Your task to perform on an android device: read, delete, or share a saved page in the chrome app Image 0: 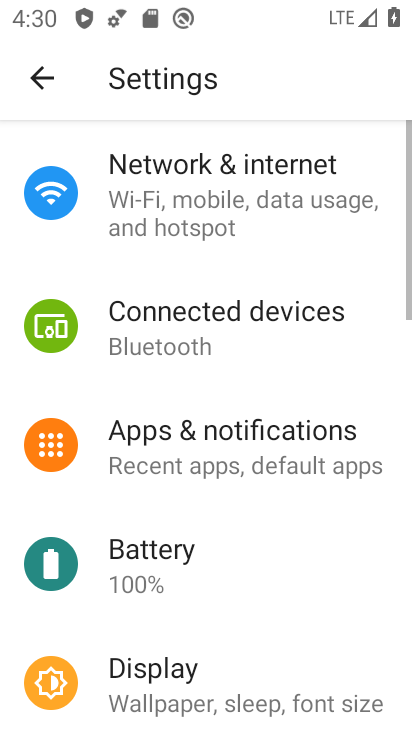
Step 0: press back button
Your task to perform on an android device: read, delete, or share a saved page in the chrome app Image 1: 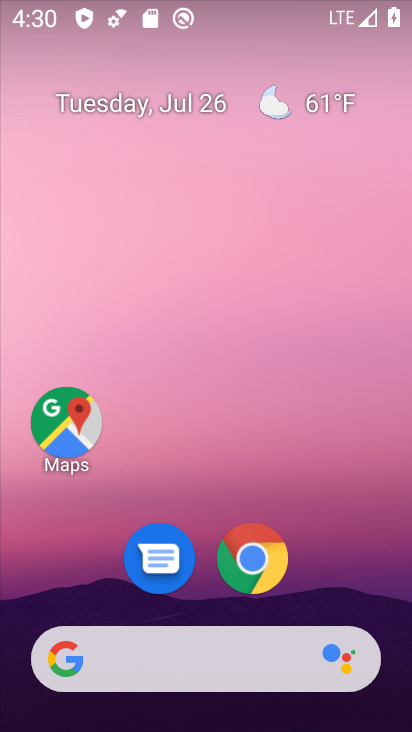
Step 1: click (244, 561)
Your task to perform on an android device: read, delete, or share a saved page in the chrome app Image 2: 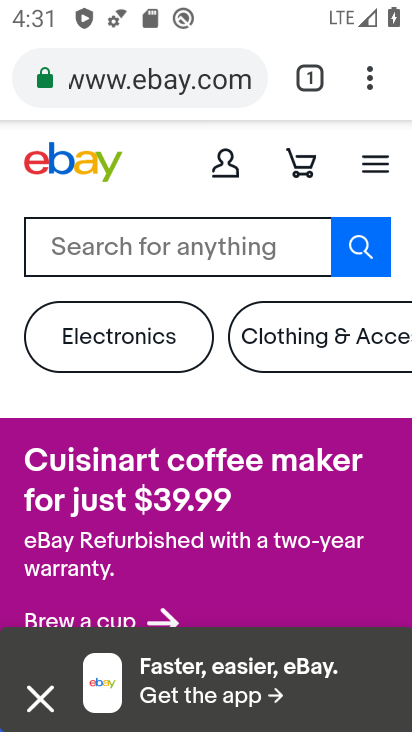
Step 2: drag from (367, 73) to (129, 489)
Your task to perform on an android device: read, delete, or share a saved page in the chrome app Image 3: 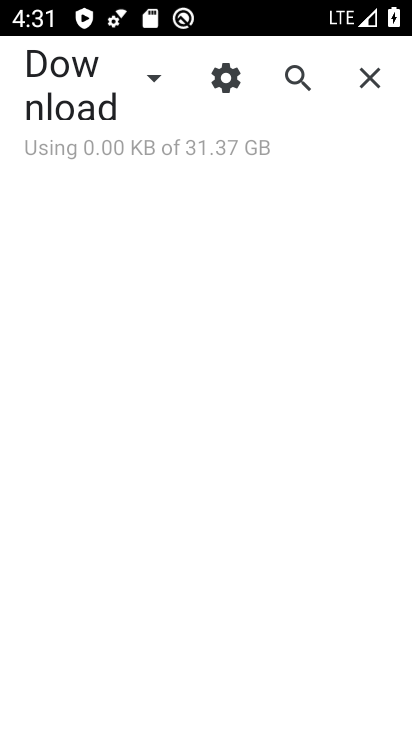
Step 3: click (145, 80)
Your task to perform on an android device: read, delete, or share a saved page in the chrome app Image 4: 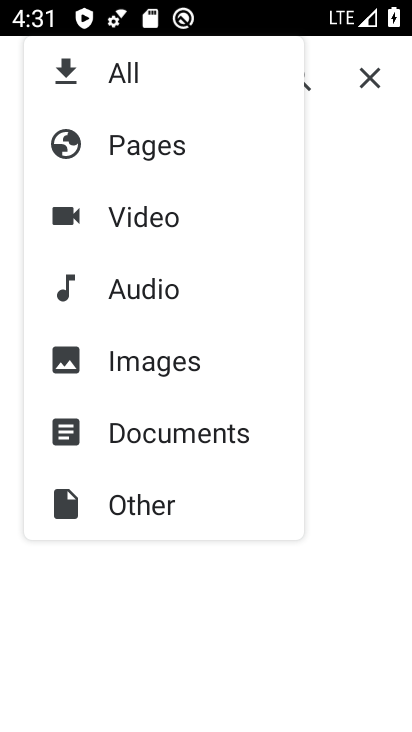
Step 4: click (150, 158)
Your task to perform on an android device: read, delete, or share a saved page in the chrome app Image 5: 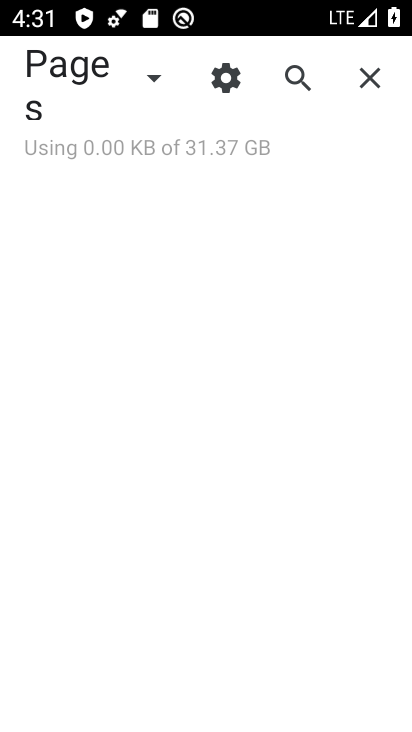
Step 5: task complete